Your task to perform on an android device: Go to wifi settings Image 0: 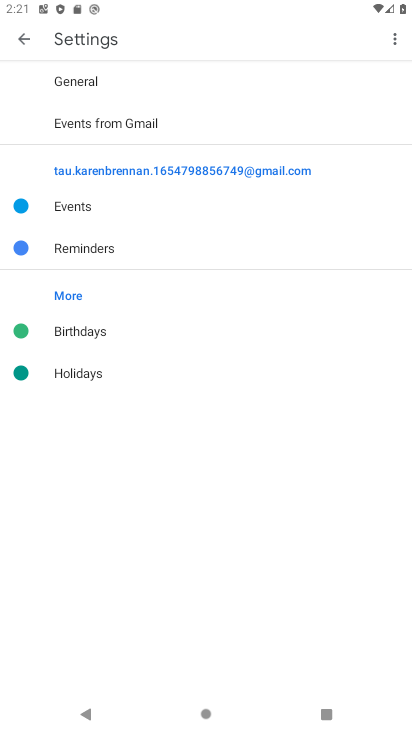
Step 0: press home button
Your task to perform on an android device: Go to wifi settings Image 1: 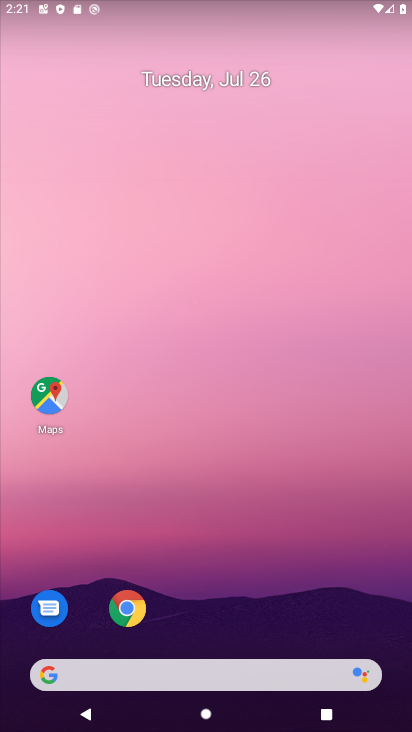
Step 1: drag from (247, 648) to (269, 55)
Your task to perform on an android device: Go to wifi settings Image 2: 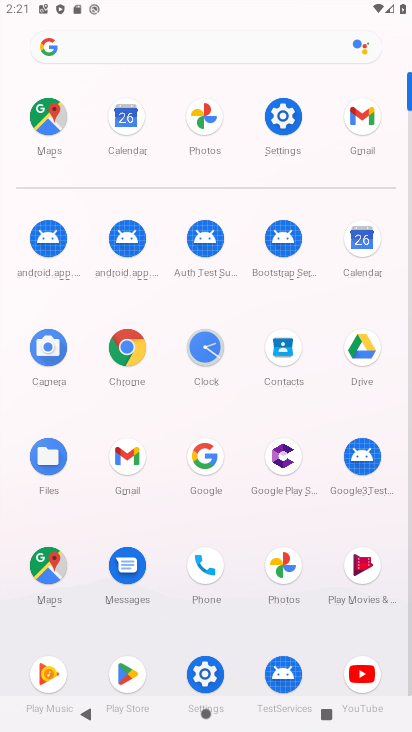
Step 2: click (288, 147)
Your task to perform on an android device: Go to wifi settings Image 3: 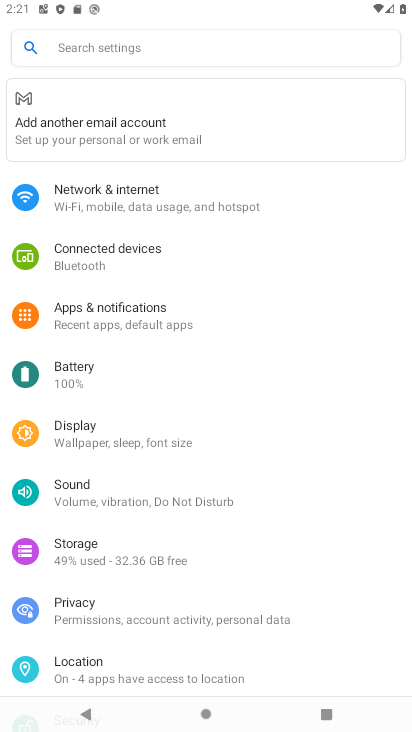
Step 3: click (203, 219)
Your task to perform on an android device: Go to wifi settings Image 4: 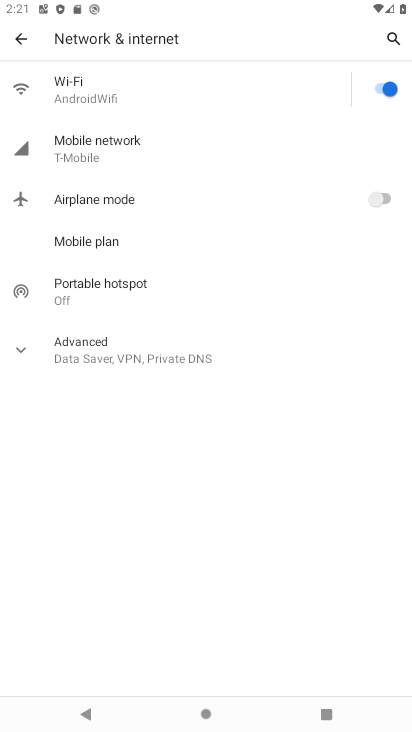
Step 4: task complete